Your task to perform on an android device: Open CNN.com Image 0: 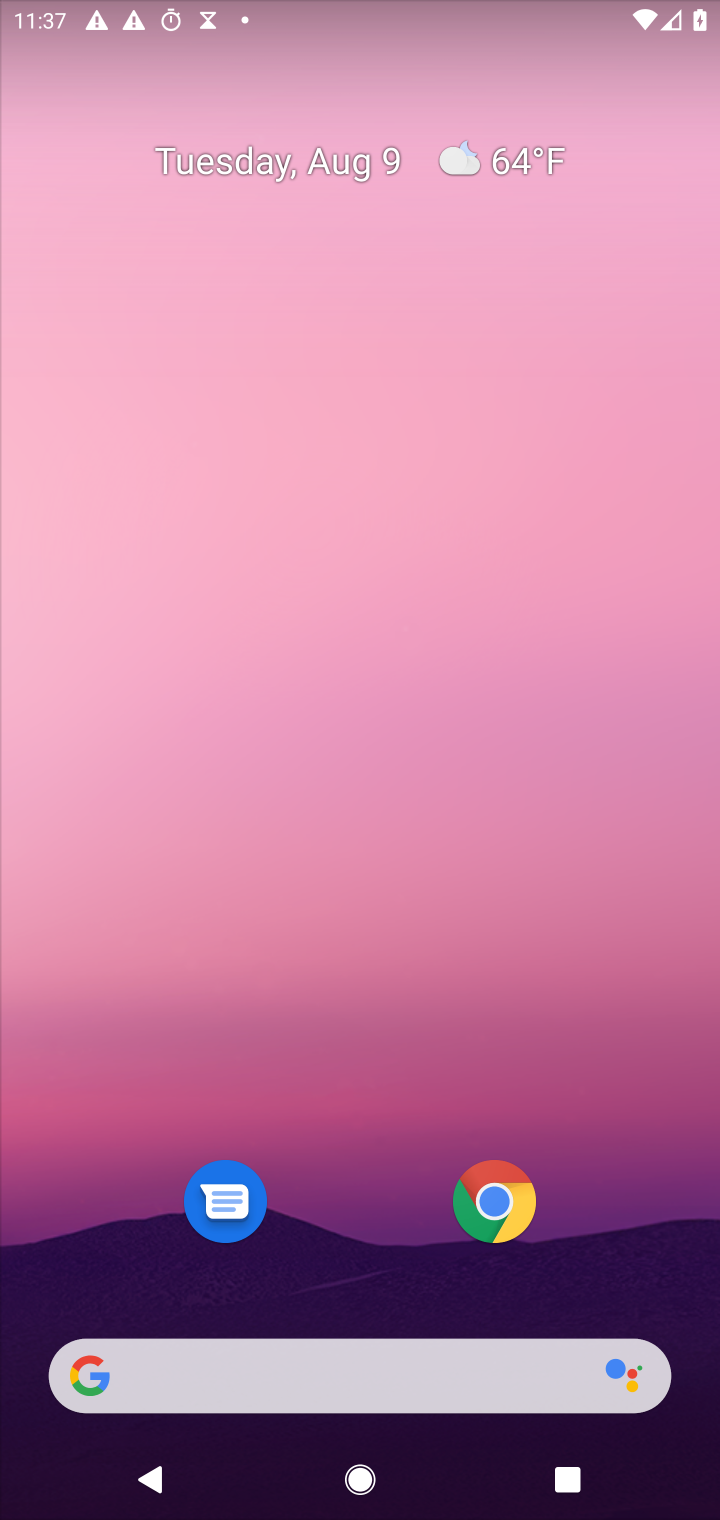
Step 0: press home button
Your task to perform on an android device: Open CNN.com Image 1: 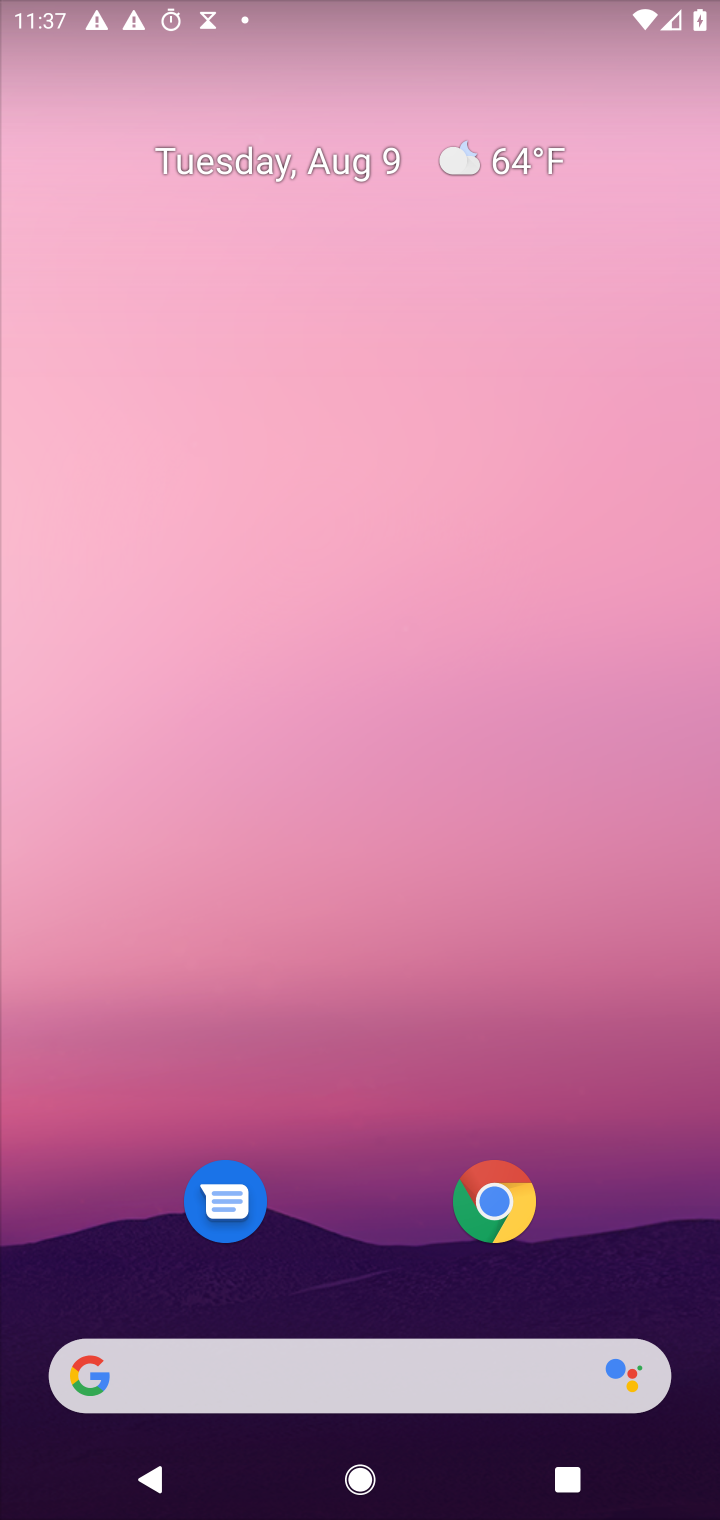
Step 1: click (304, 90)
Your task to perform on an android device: Open CNN.com Image 2: 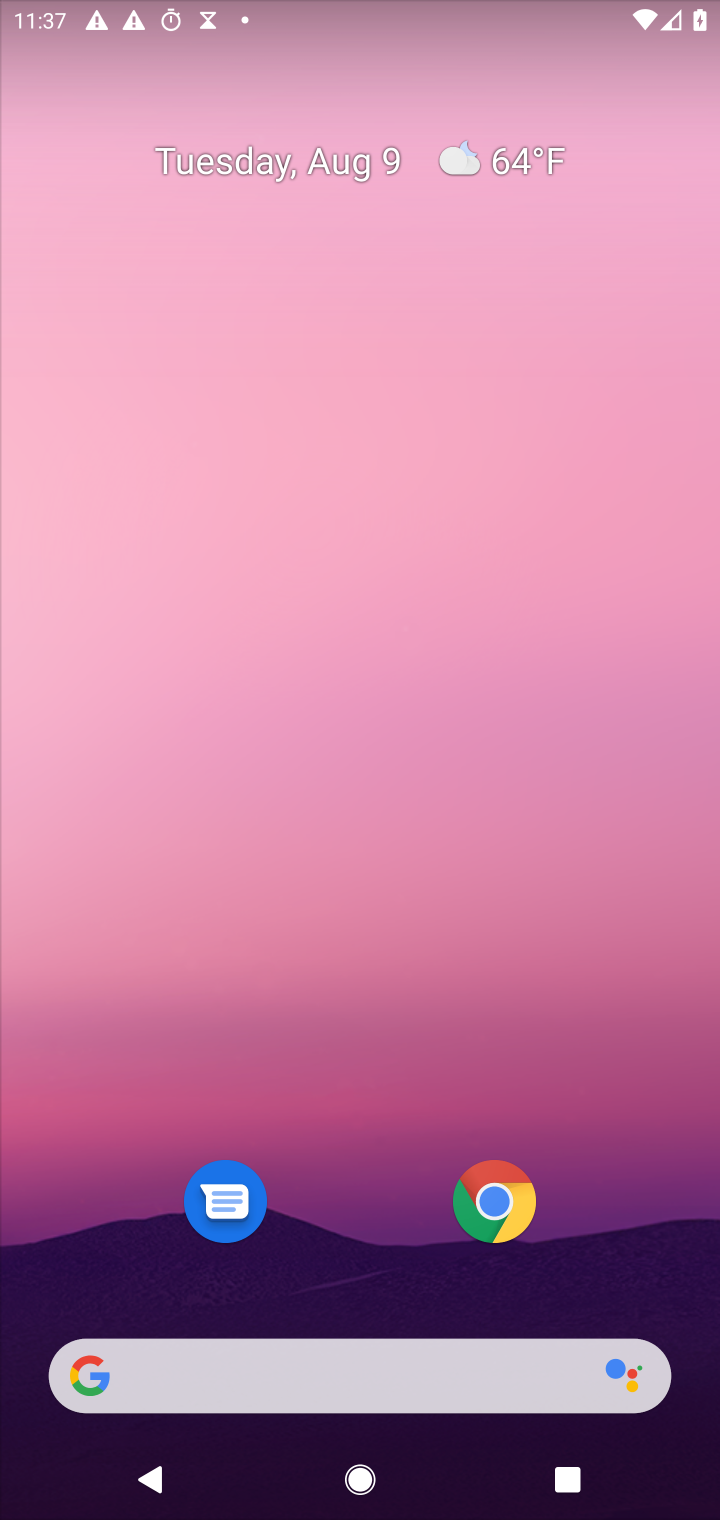
Step 2: drag from (377, 1257) to (376, 48)
Your task to perform on an android device: Open CNN.com Image 3: 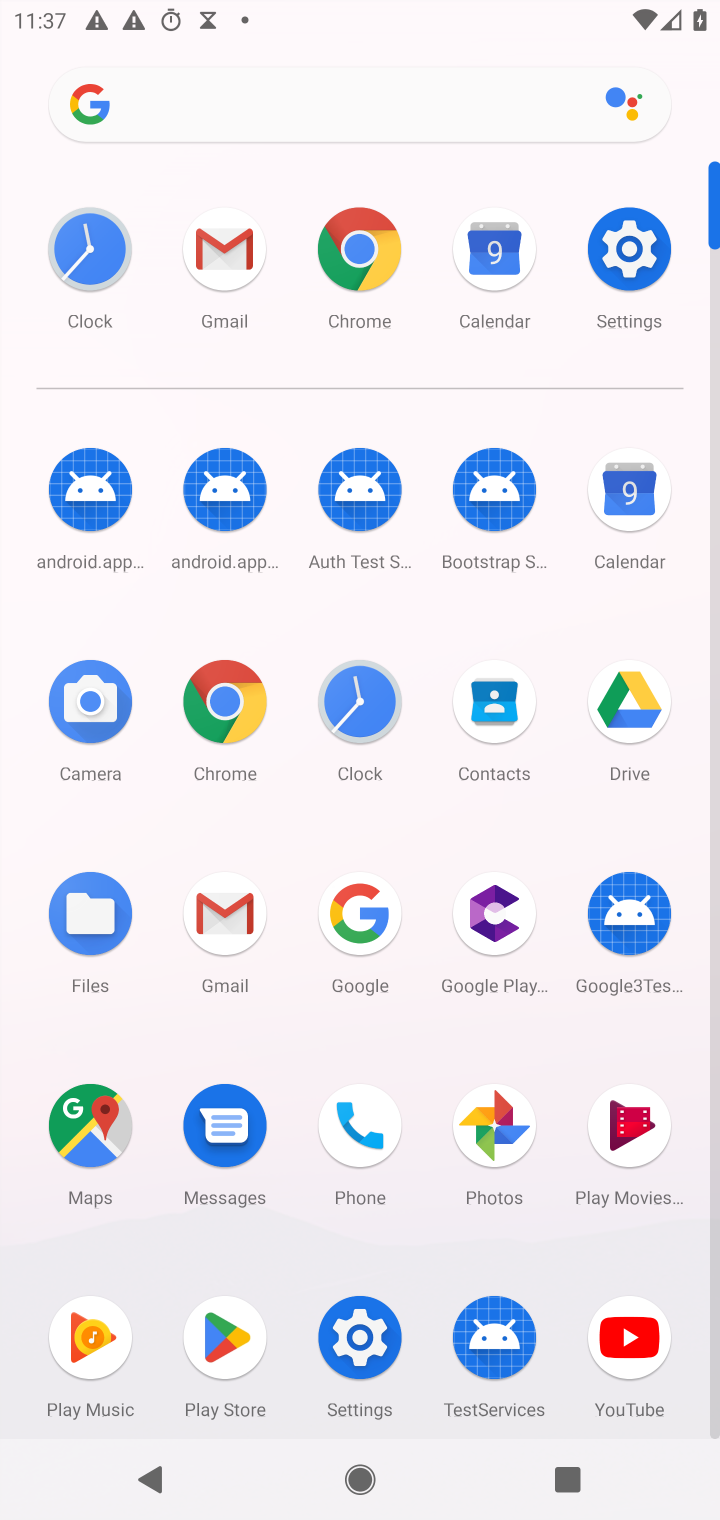
Step 3: click (367, 900)
Your task to perform on an android device: Open CNN.com Image 4: 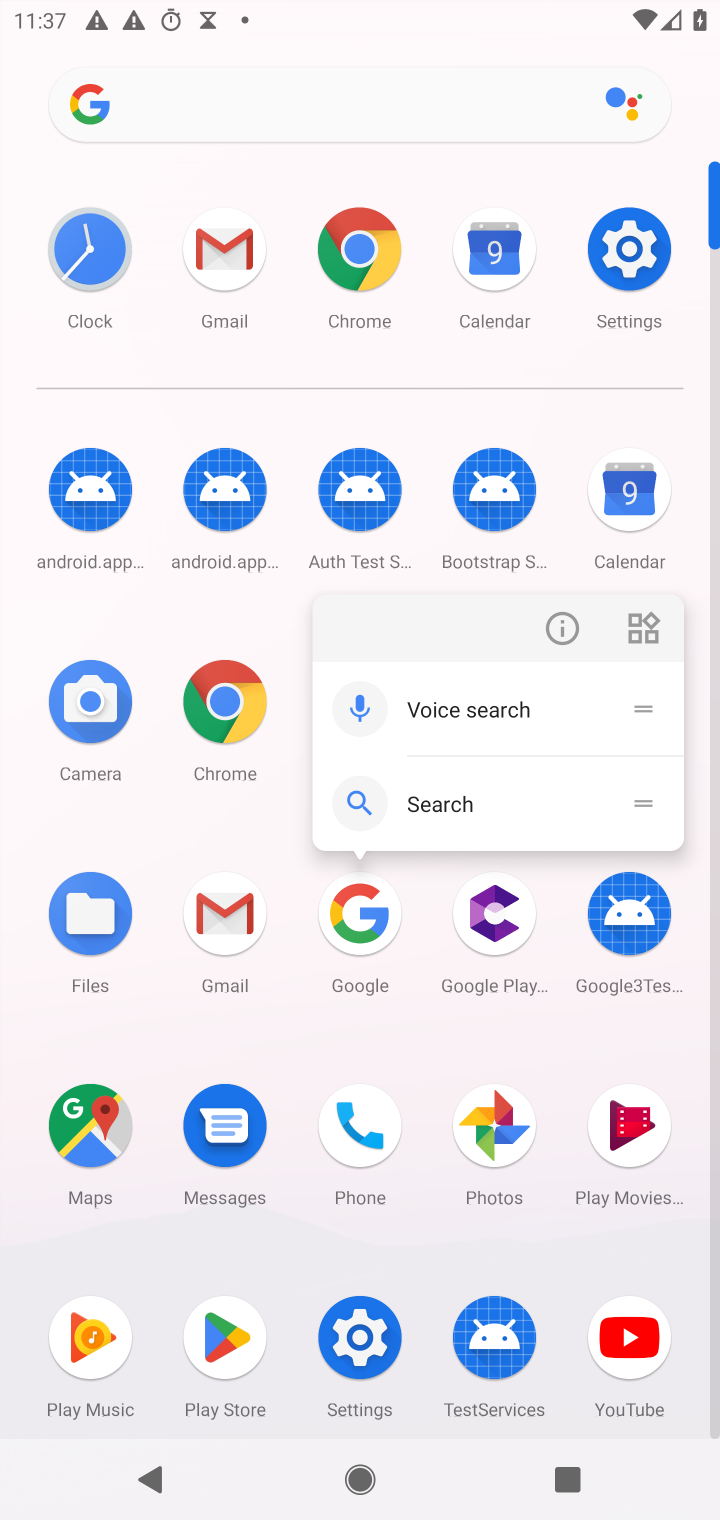
Step 4: click (372, 917)
Your task to perform on an android device: Open CNN.com Image 5: 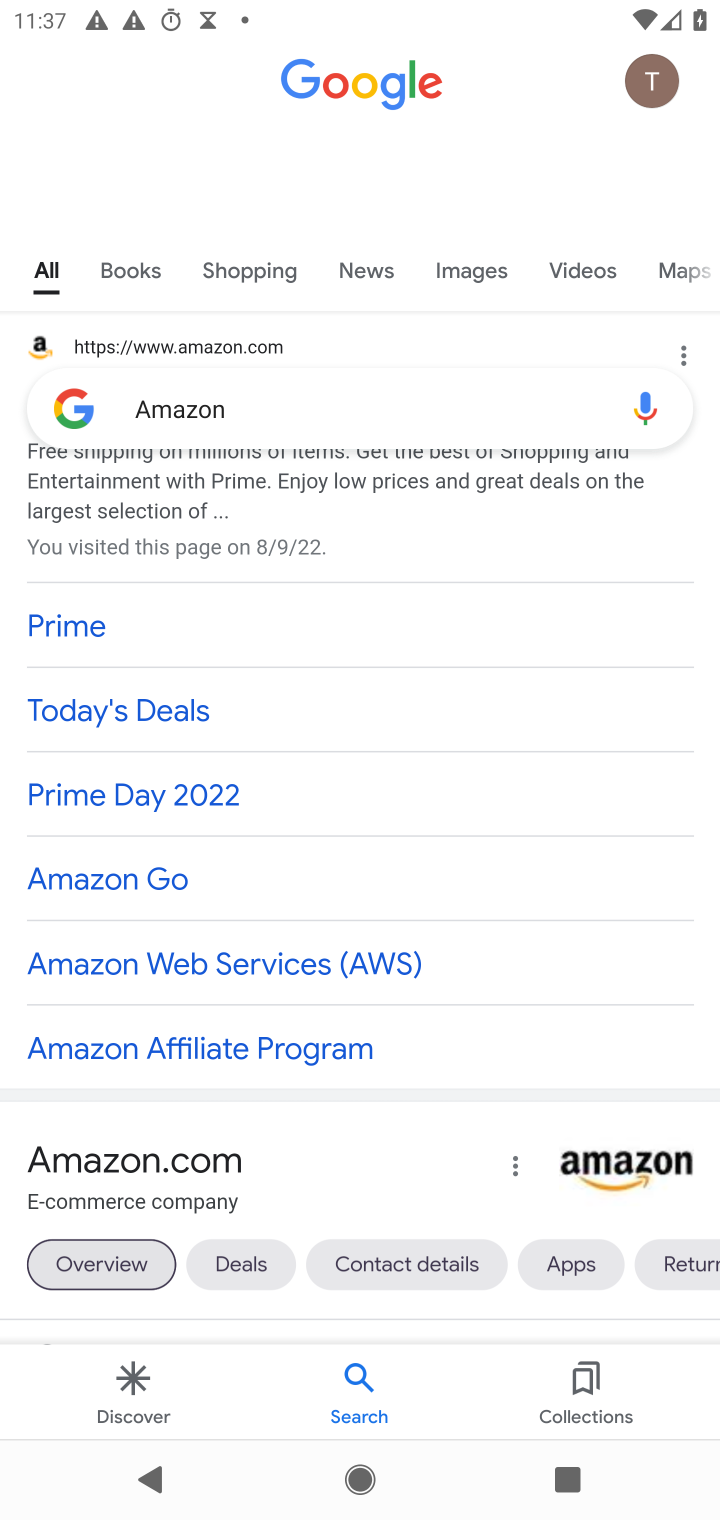
Step 5: click (318, 417)
Your task to perform on an android device: Open CNN.com Image 6: 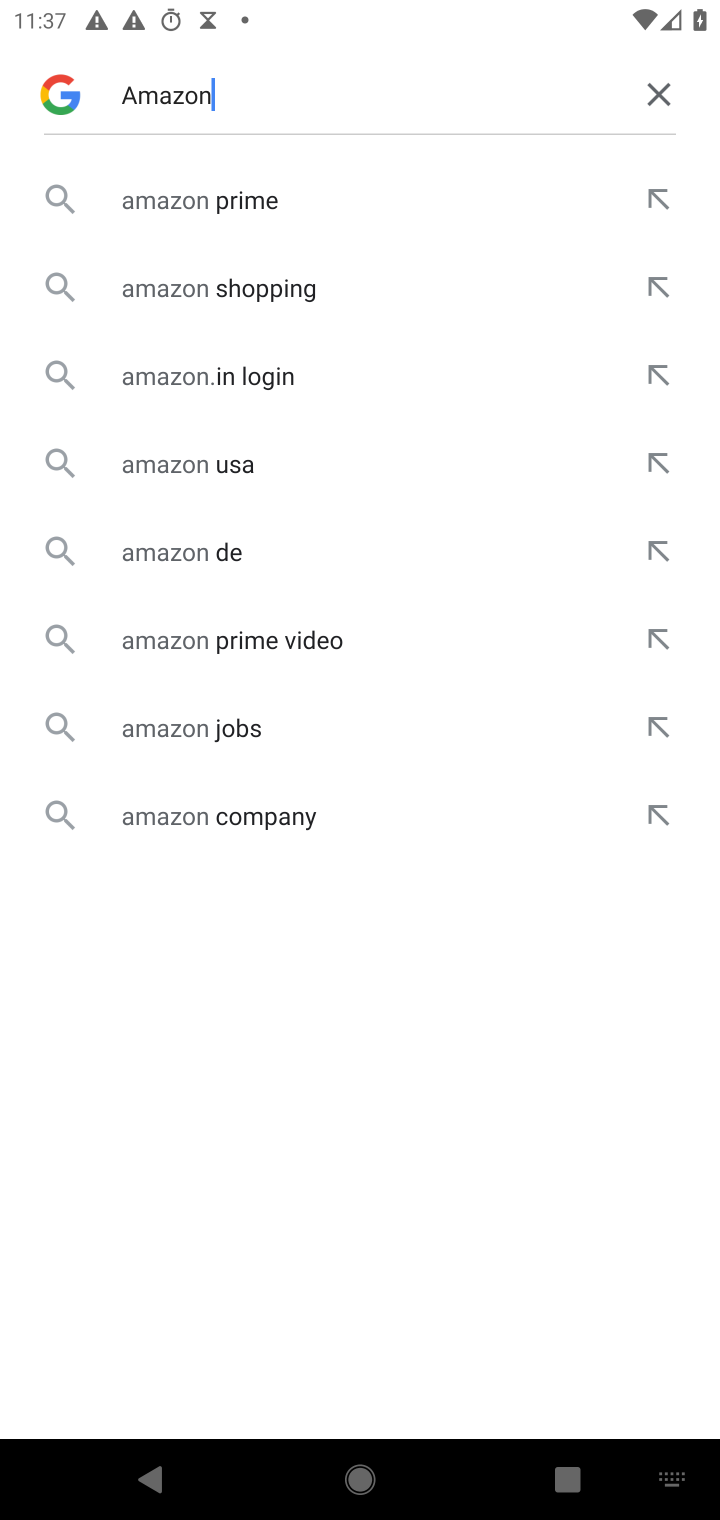
Step 6: click (660, 79)
Your task to perform on an android device: Open CNN.com Image 7: 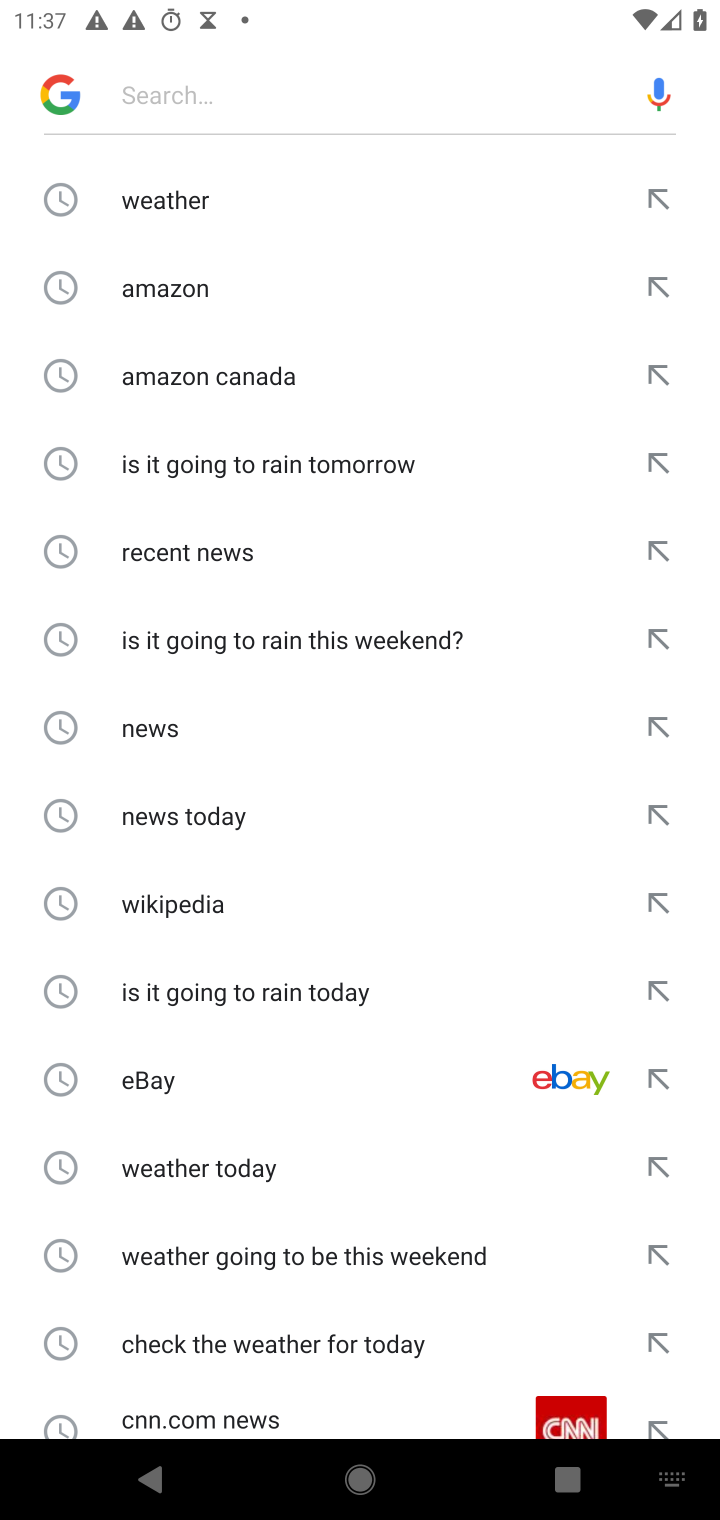
Step 7: type "CNN.com"
Your task to perform on an android device: Open CNN.com Image 8: 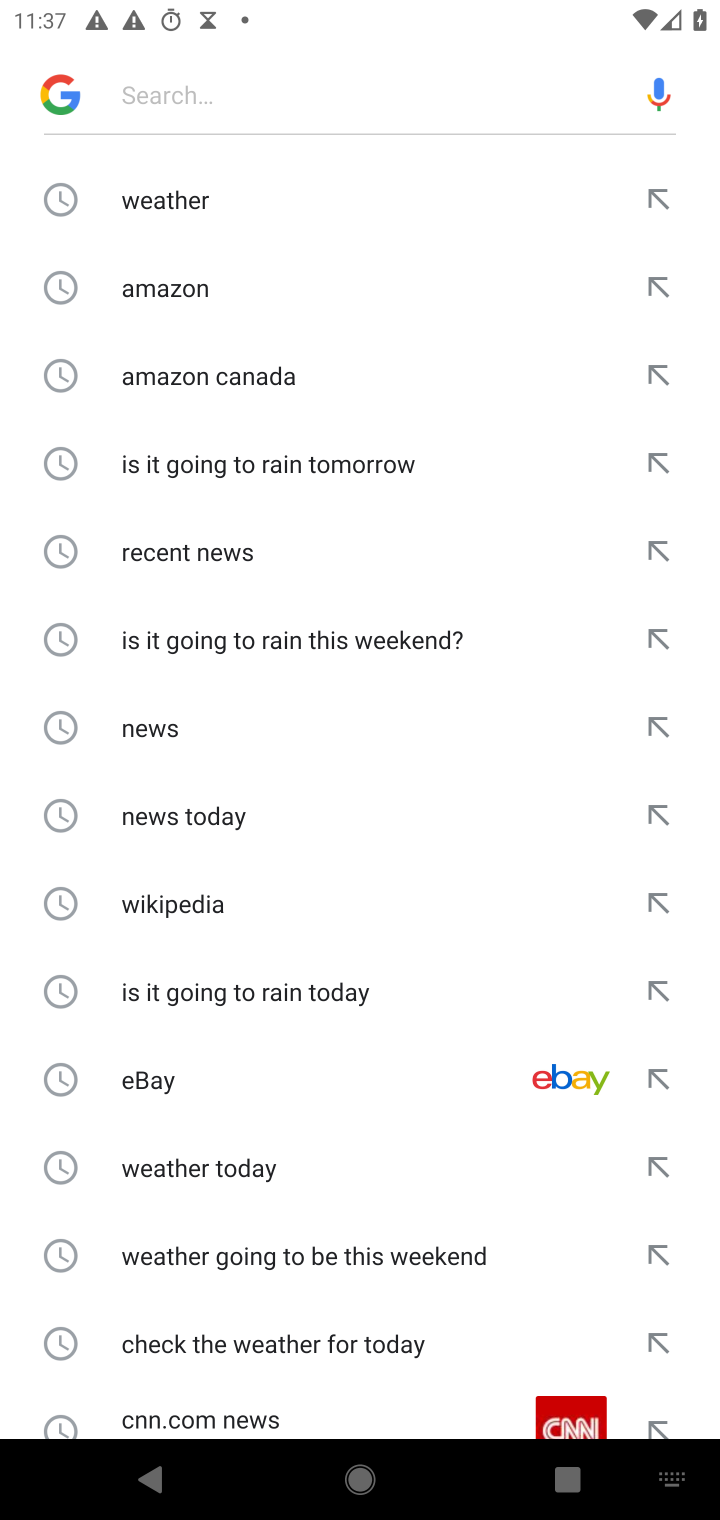
Step 8: click (173, 96)
Your task to perform on an android device: Open CNN.com Image 9: 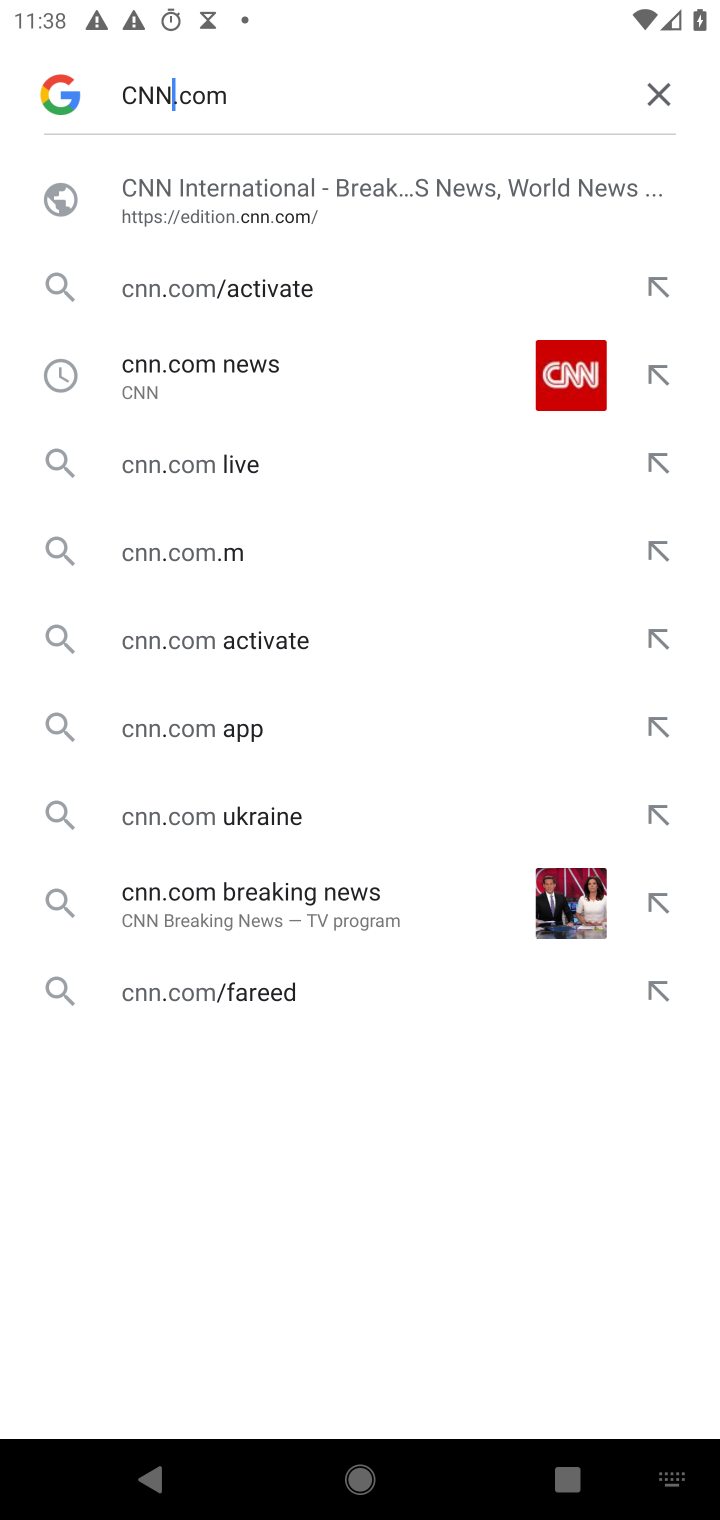
Step 9: press enter
Your task to perform on an android device: Open CNN.com Image 10: 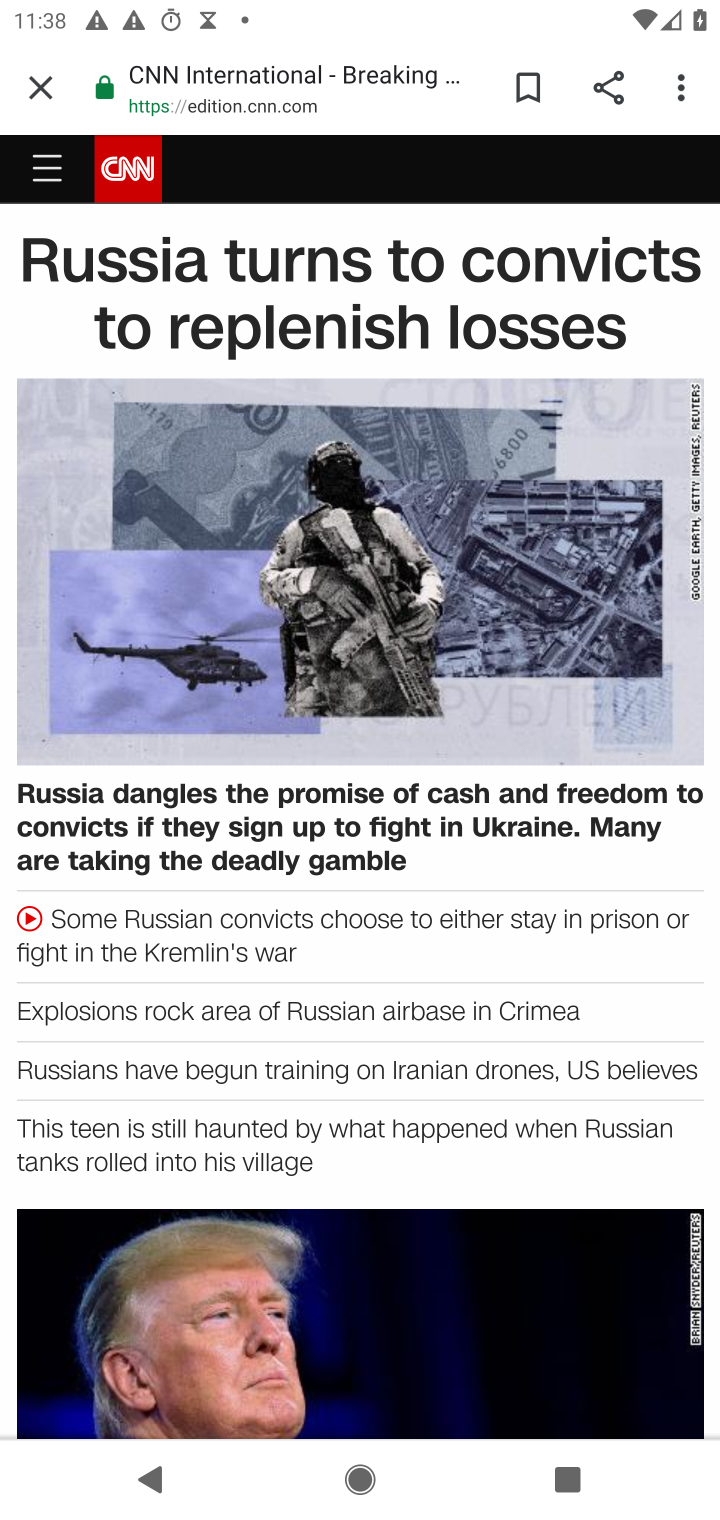
Step 10: task complete